Your task to perform on an android device: Go to calendar. Show me events next week Image 0: 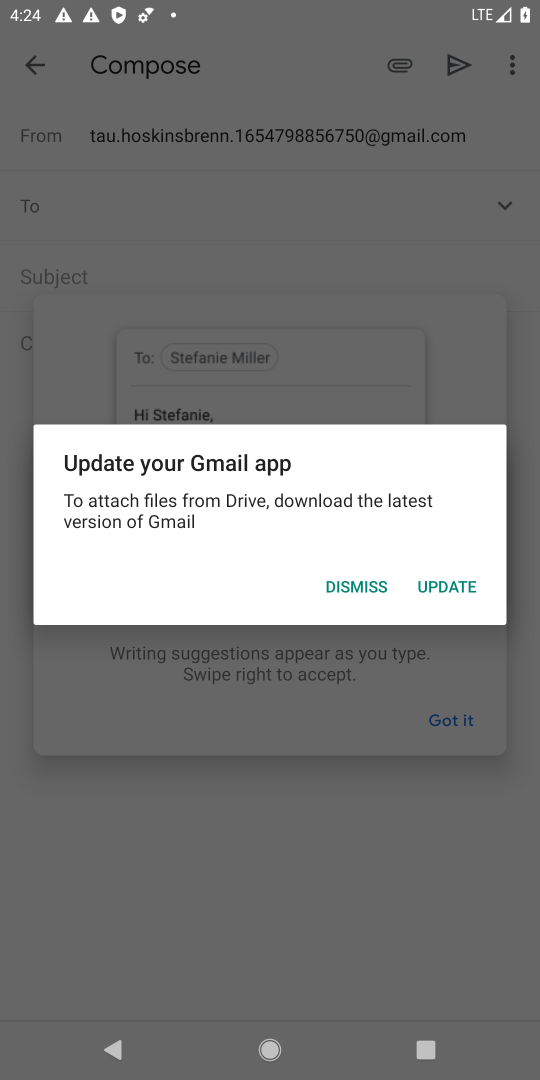
Step 0: press home button
Your task to perform on an android device: Go to calendar. Show me events next week Image 1: 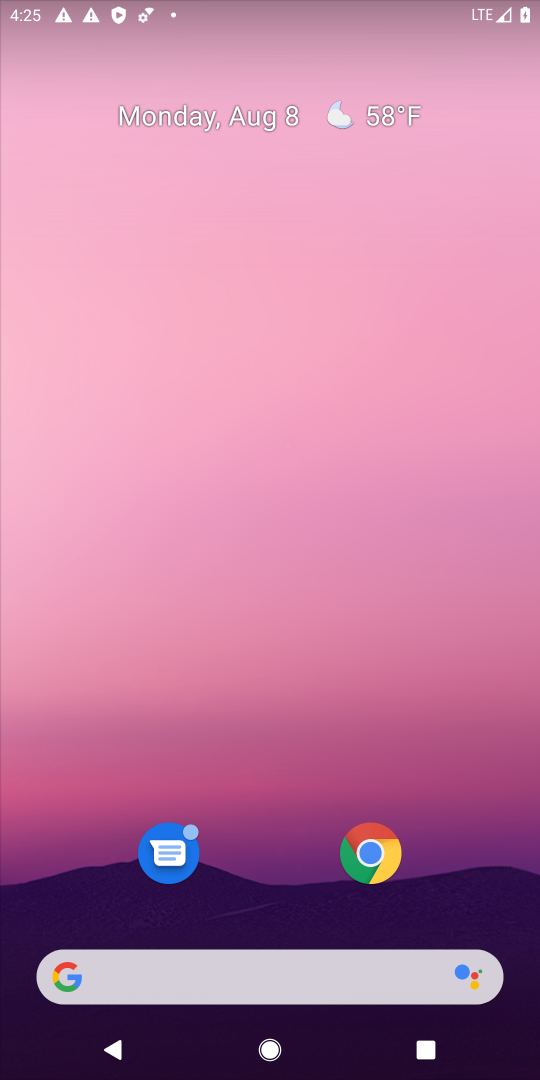
Step 1: drag from (268, 828) to (341, 10)
Your task to perform on an android device: Go to calendar. Show me events next week Image 2: 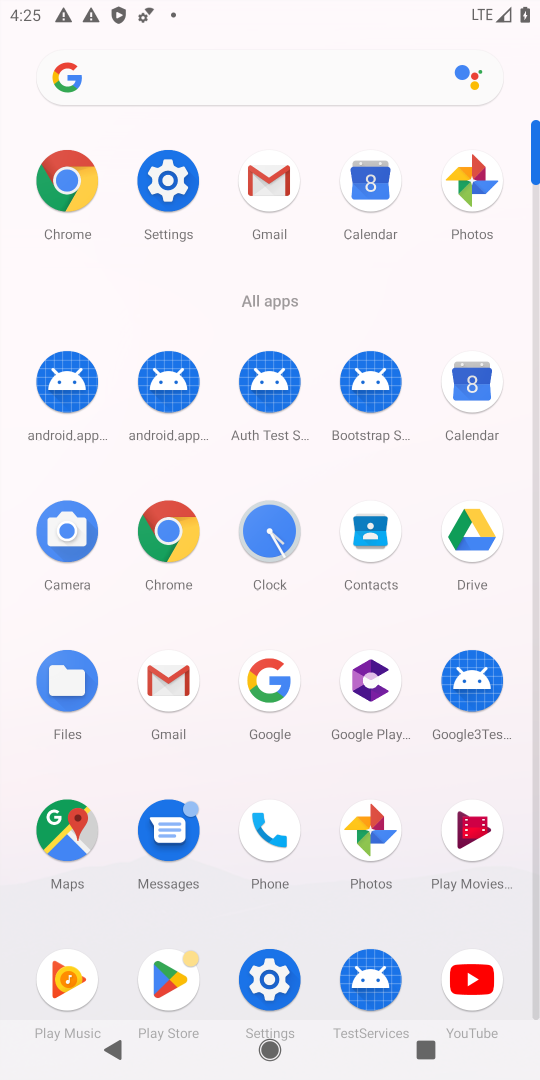
Step 2: click (376, 189)
Your task to perform on an android device: Go to calendar. Show me events next week Image 3: 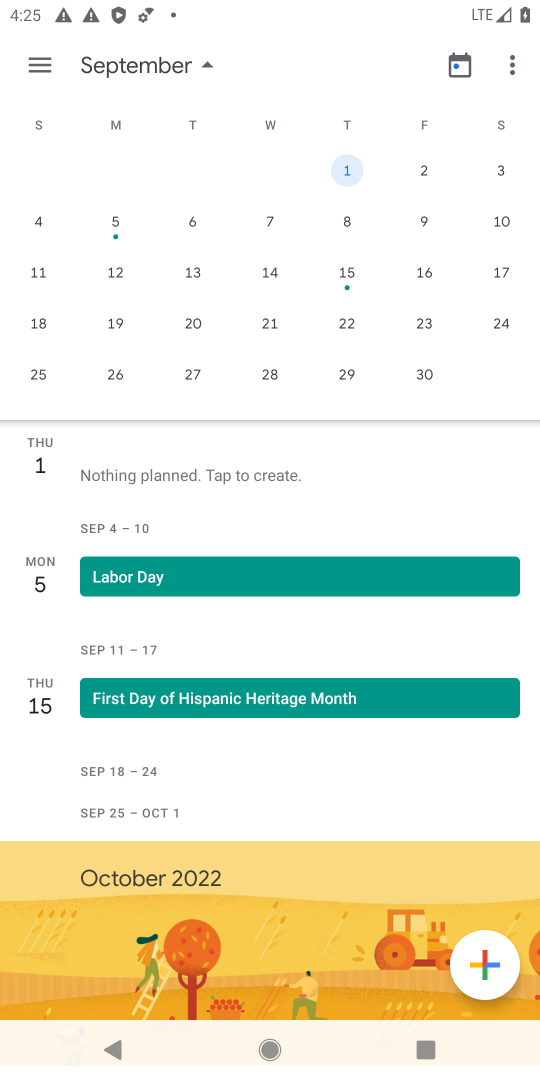
Step 3: drag from (156, 162) to (533, 180)
Your task to perform on an android device: Go to calendar. Show me events next week Image 4: 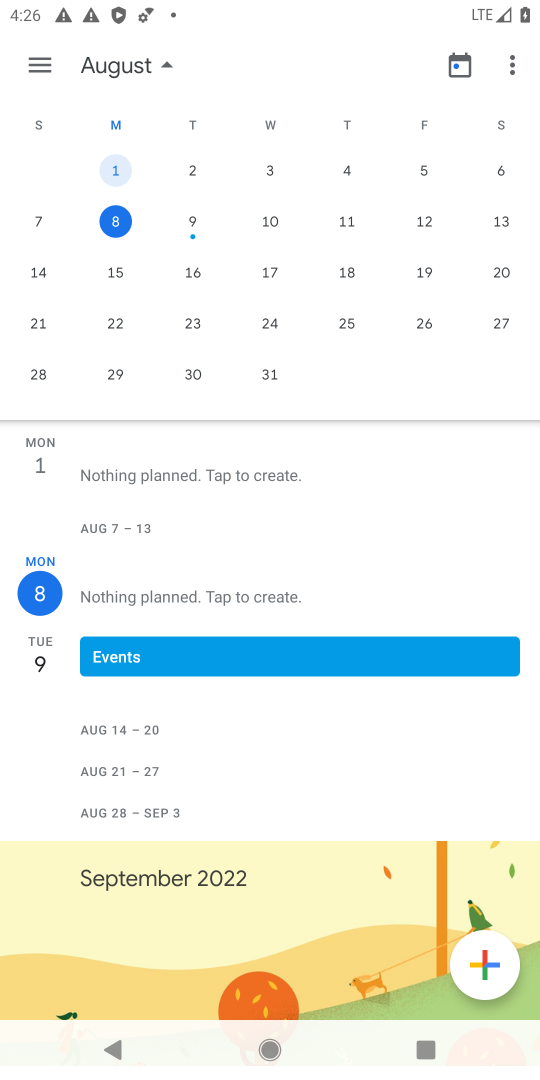
Step 4: click (114, 234)
Your task to perform on an android device: Go to calendar. Show me events next week Image 5: 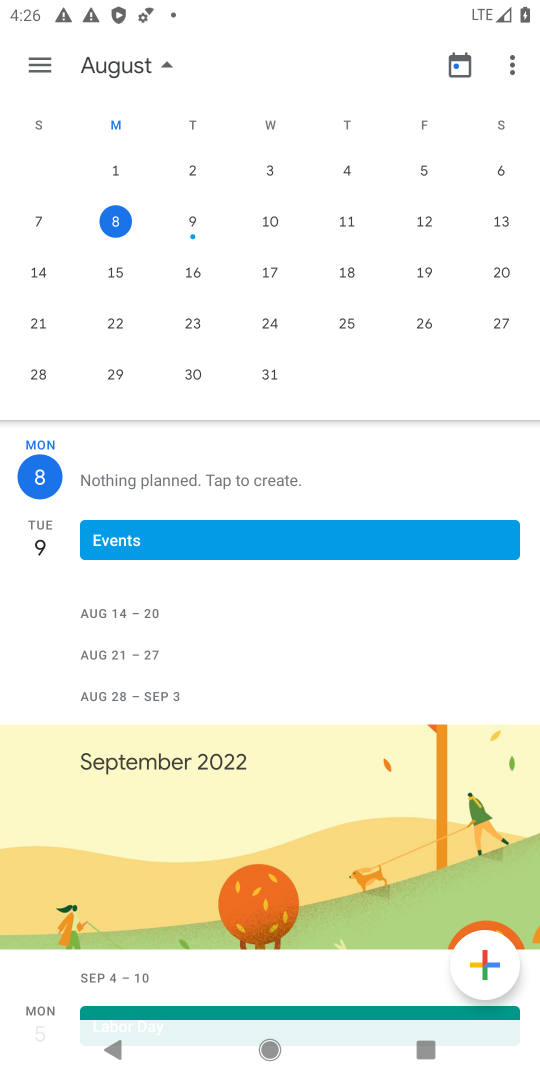
Step 5: task complete